Your task to perform on an android device: Open internet settings Image 0: 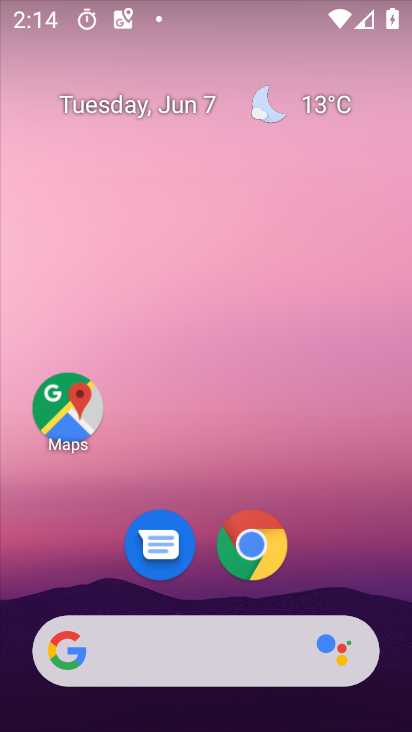
Step 0: drag from (291, 598) to (211, 15)
Your task to perform on an android device: Open internet settings Image 1: 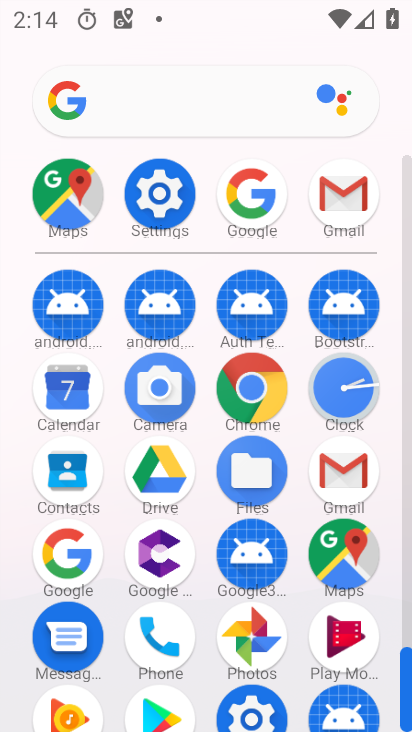
Step 1: click (162, 204)
Your task to perform on an android device: Open internet settings Image 2: 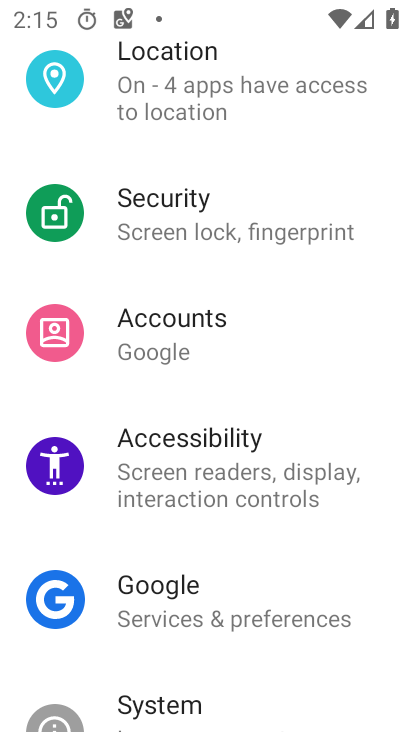
Step 2: drag from (302, 152) to (326, 731)
Your task to perform on an android device: Open internet settings Image 3: 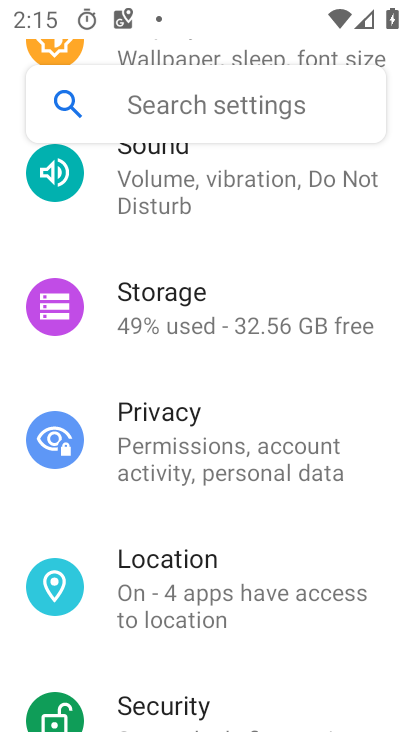
Step 3: drag from (251, 164) to (309, 708)
Your task to perform on an android device: Open internet settings Image 4: 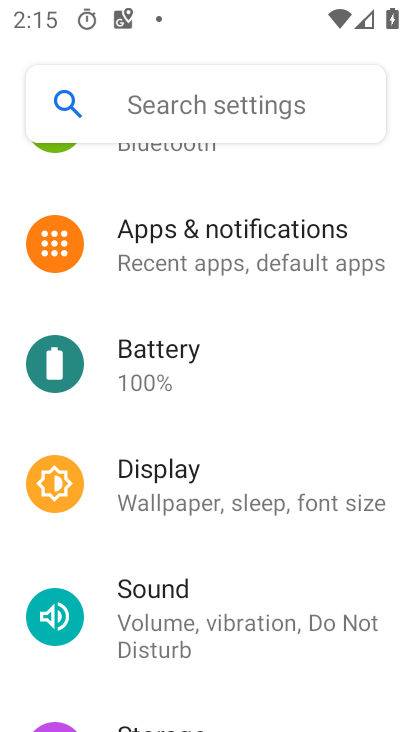
Step 4: drag from (273, 168) to (309, 688)
Your task to perform on an android device: Open internet settings Image 5: 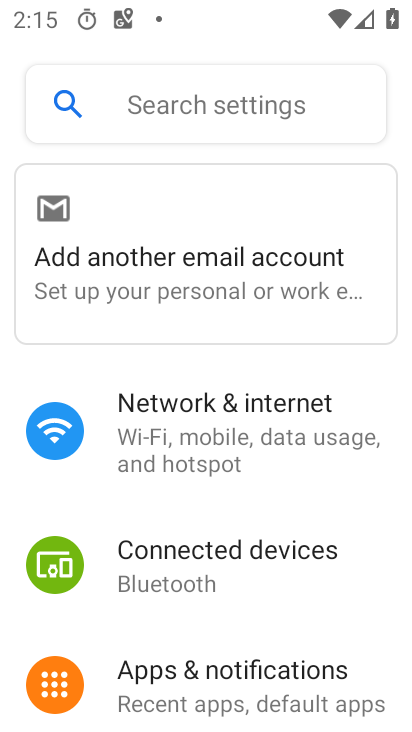
Step 5: drag from (241, 245) to (256, 562)
Your task to perform on an android device: Open internet settings Image 6: 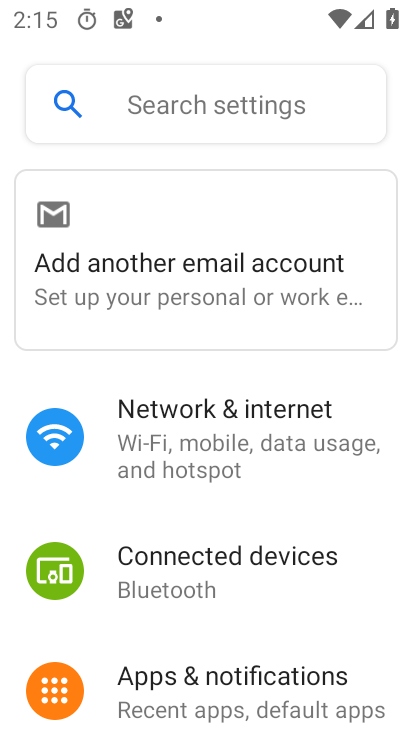
Step 6: click (218, 450)
Your task to perform on an android device: Open internet settings Image 7: 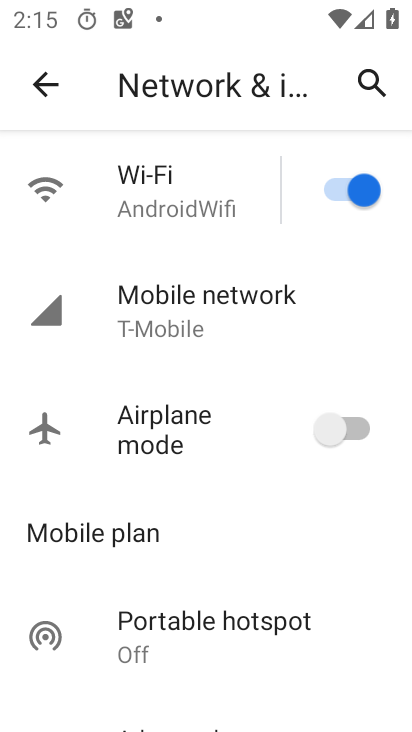
Step 7: task complete